Your task to perform on an android device: Open Maps and search for coffee Image 0: 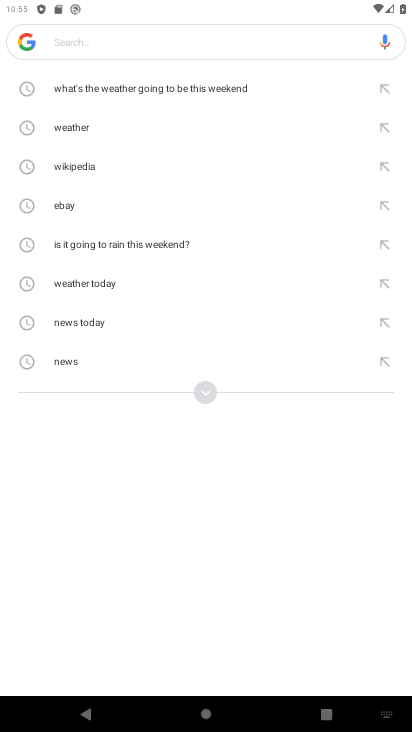
Step 0: press home button
Your task to perform on an android device: Open Maps and search for coffee Image 1: 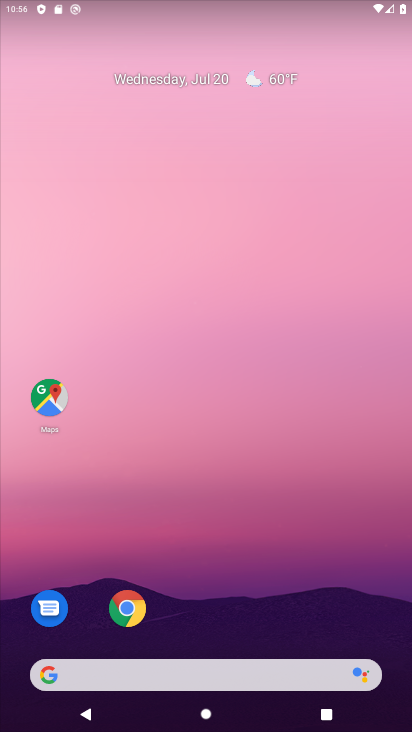
Step 1: click (44, 390)
Your task to perform on an android device: Open Maps and search for coffee Image 2: 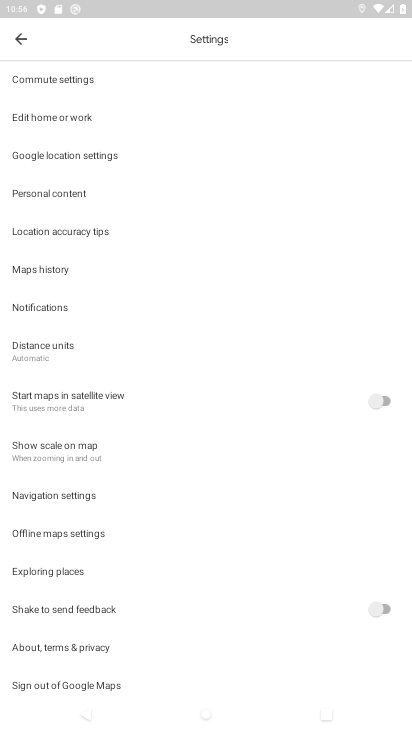
Step 2: click (17, 36)
Your task to perform on an android device: Open Maps and search for coffee Image 3: 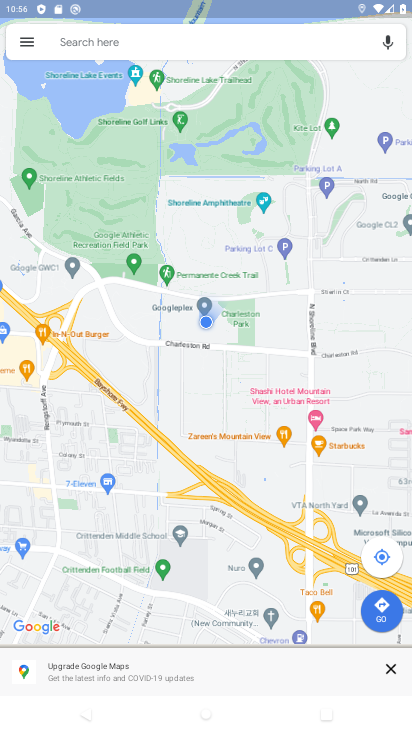
Step 3: click (100, 39)
Your task to perform on an android device: Open Maps and search for coffee Image 4: 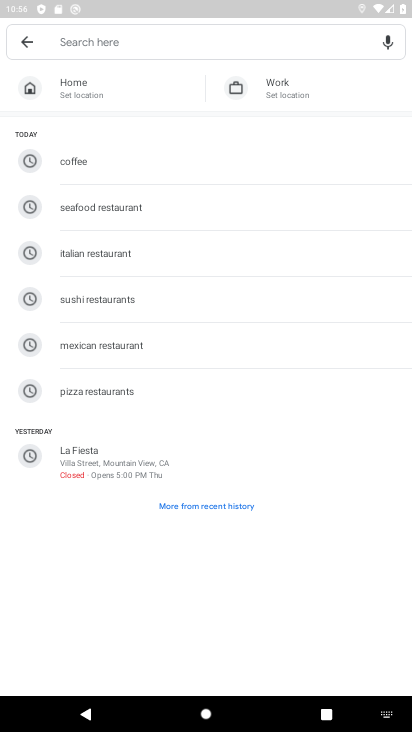
Step 4: type "coffee"
Your task to perform on an android device: Open Maps and search for coffee Image 5: 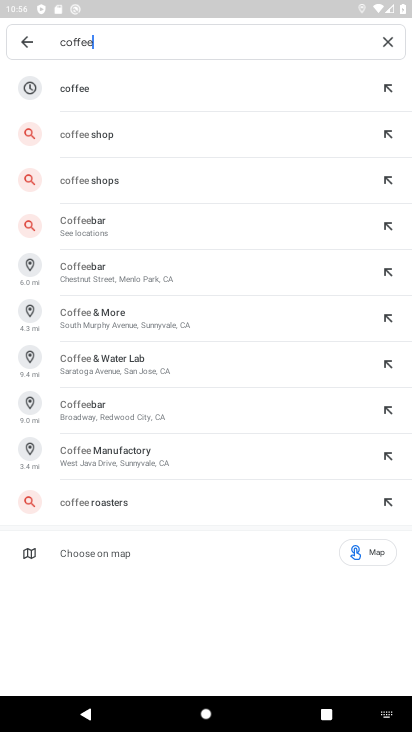
Step 5: click (119, 85)
Your task to perform on an android device: Open Maps and search for coffee Image 6: 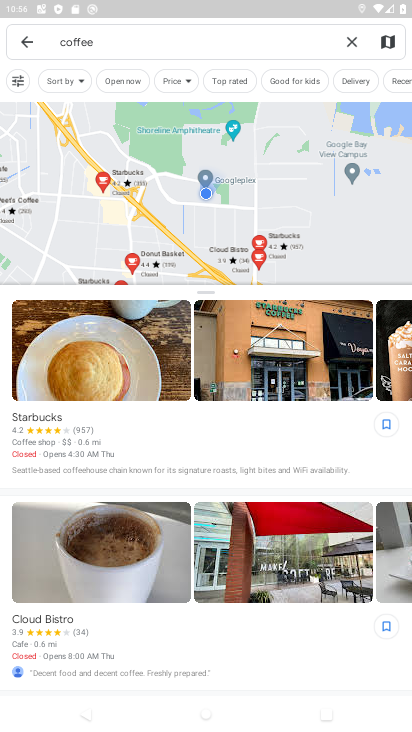
Step 6: task complete